Your task to perform on an android device: Turn on the flashlight Image 0: 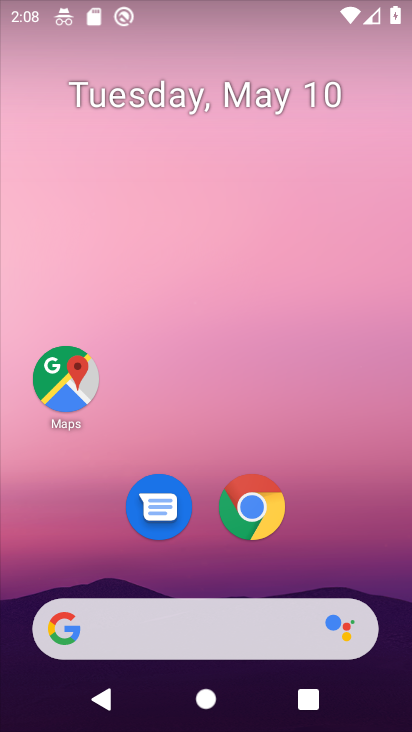
Step 0: drag from (149, 586) to (148, 292)
Your task to perform on an android device: Turn on the flashlight Image 1: 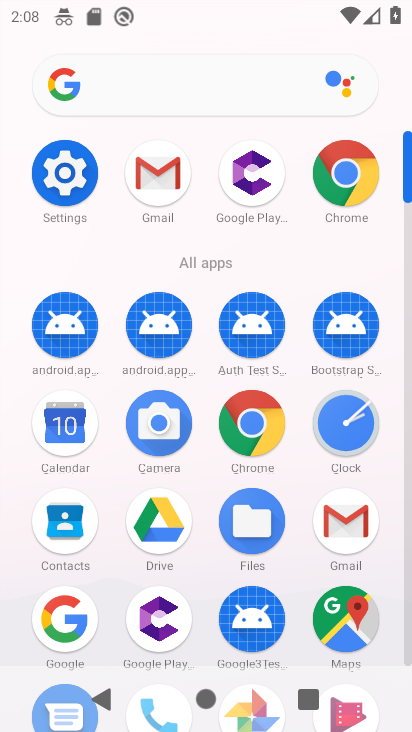
Step 1: click (70, 175)
Your task to perform on an android device: Turn on the flashlight Image 2: 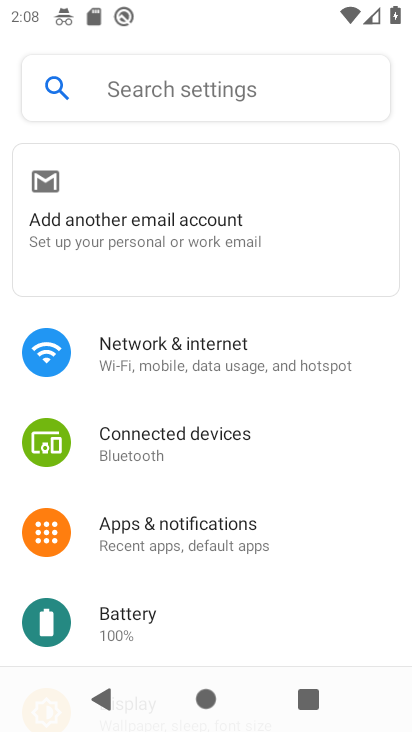
Step 2: drag from (244, 550) to (248, 267)
Your task to perform on an android device: Turn on the flashlight Image 3: 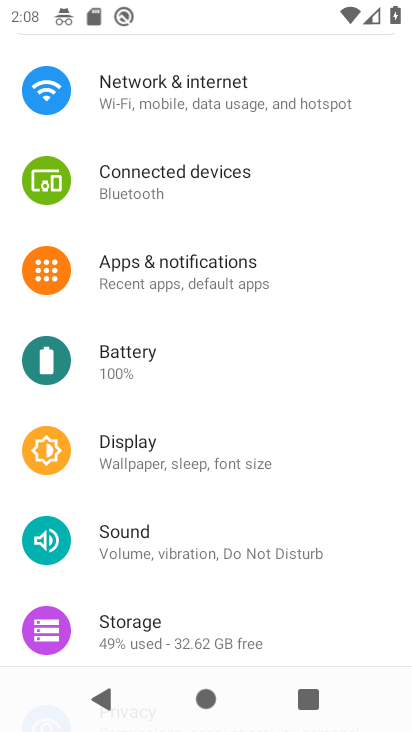
Step 3: click (222, 463)
Your task to perform on an android device: Turn on the flashlight Image 4: 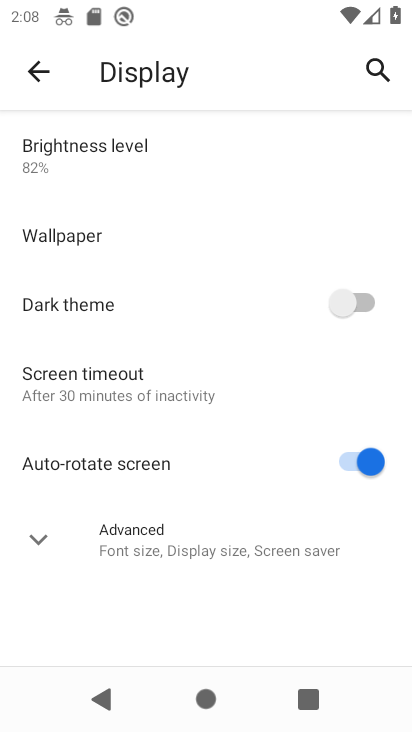
Step 4: task complete